Your task to perform on an android device: Turn on the flashlight Image 0: 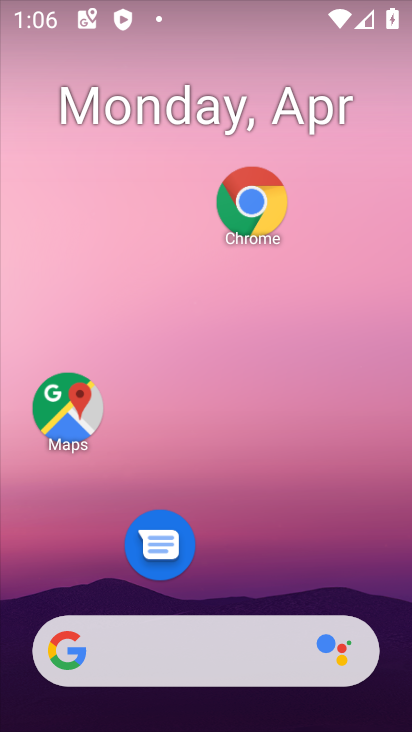
Step 0: drag from (288, 14) to (210, 449)
Your task to perform on an android device: Turn on the flashlight Image 1: 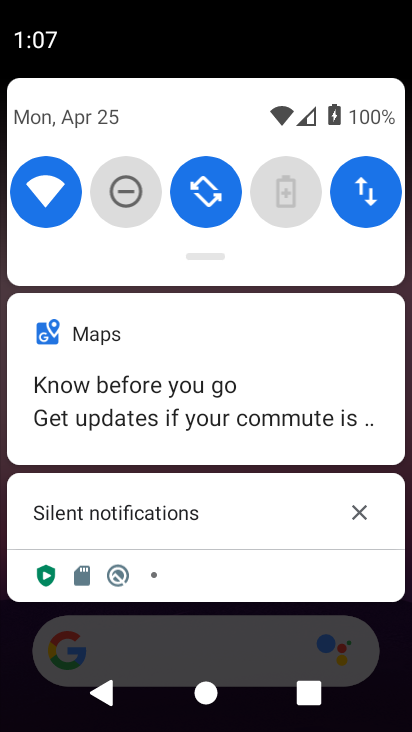
Step 1: drag from (212, 107) to (217, 590)
Your task to perform on an android device: Turn on the flashlight Image 2: 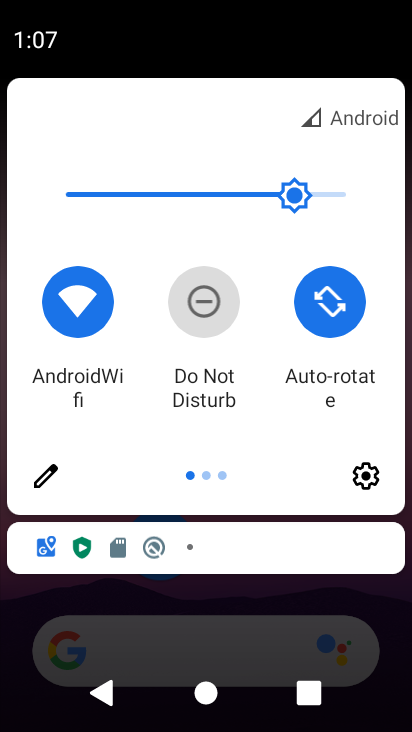
Step 2: click (370, 485)
Your task to perform on an android device: Turn on the flashlight Image 3: 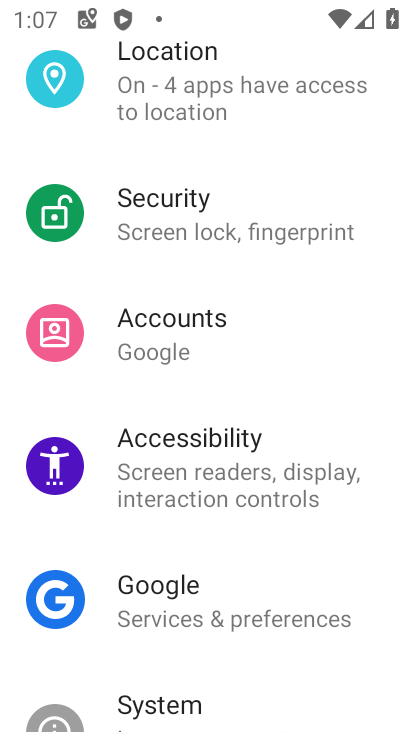
Step 3: task complete